Your task to perform on an android device: set default search engine in the chrome app Image 0: 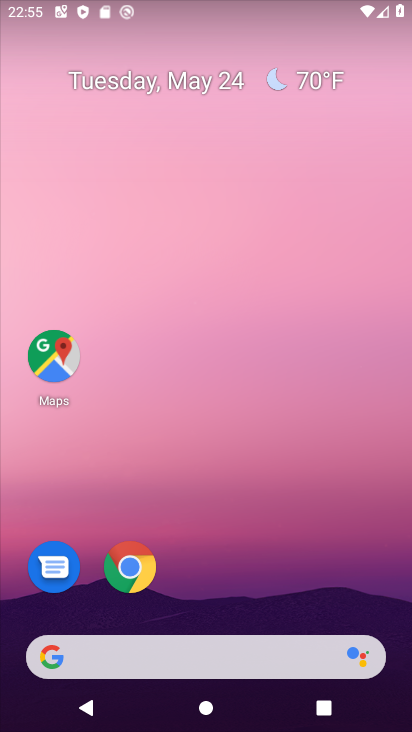
Step 0: click (142, 570)
Your task to perform on an android device: set default search engine in the chrome app Image 1: 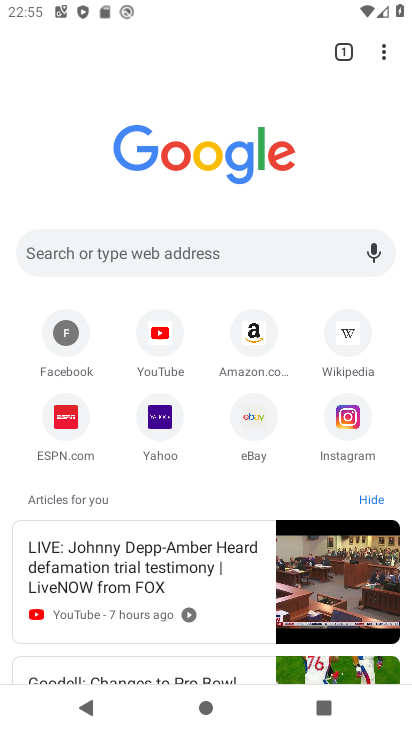
Step 1: click (385, 45)
Your task to perform on an android device: set default search engine in the chrome app Image 2: 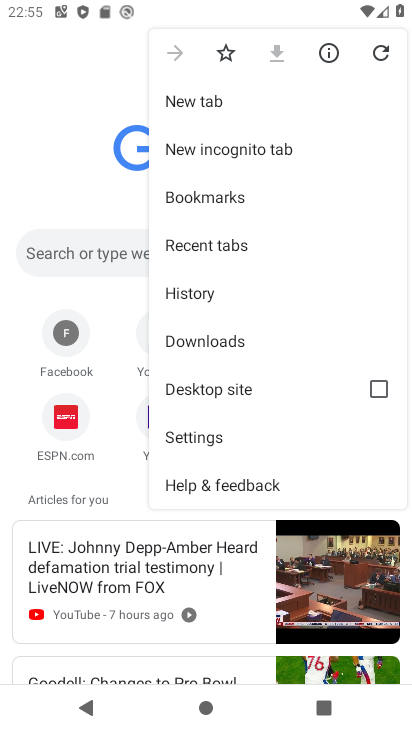
Step 2: click (252, 437)
Your task to perform on an android device: set default search engine in the chrome app Image 3: 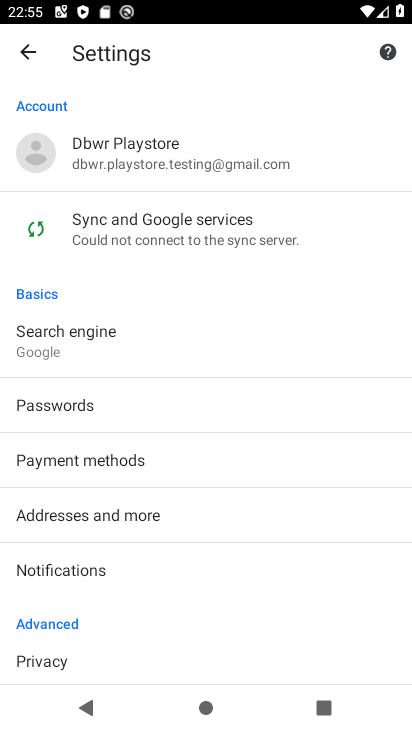
Step 3: click (161, 341)
Your task to perform on an android device: set default search engine in the chrome app Image 4: 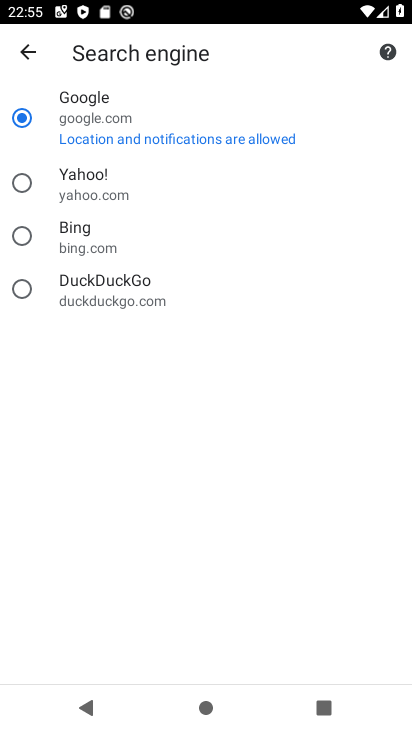
Step 4: click (137, 106)
Your task to perform on an android device: set default search engine in the chrome app Image 5: 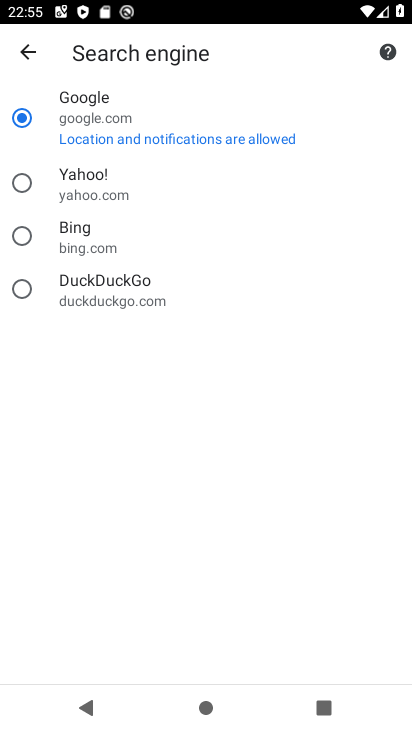
Step 5: task complete